Your task to perform on an android device: star an email in the gmail app Image 0: 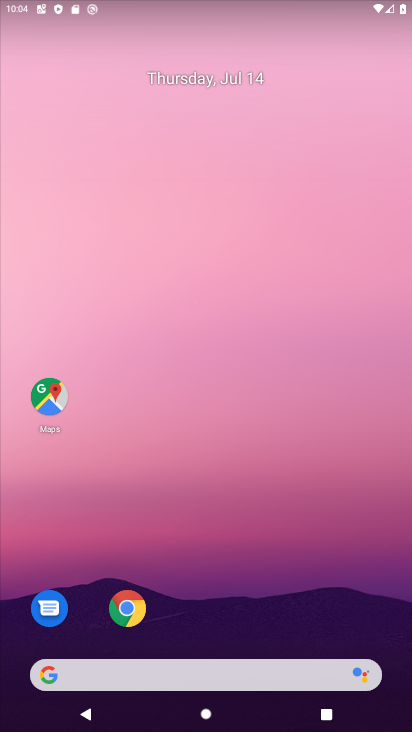
Step 0: drag from (187, 322) to (187, 92)
Your task to perform on an android device: star an email in the gmail app Image 1: 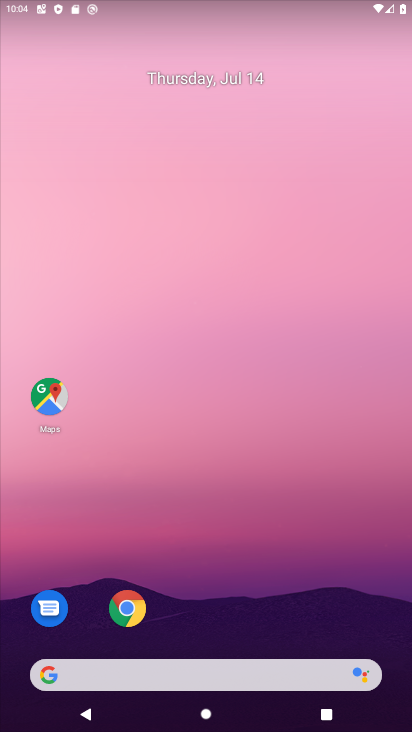
Step 1: drag from (184, 569) to (152, 222)
Your task to perform on an android device: star an email in the gmail app Image 2: 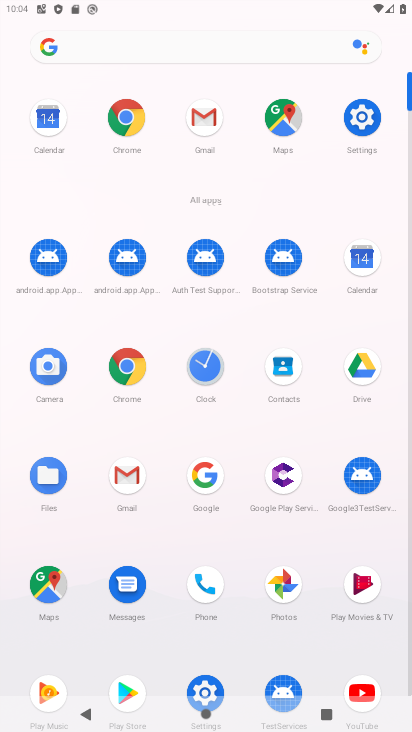
Step 2: click (198, 119)
Your task to perform on an android device: star an email in the gmail app Image 3: 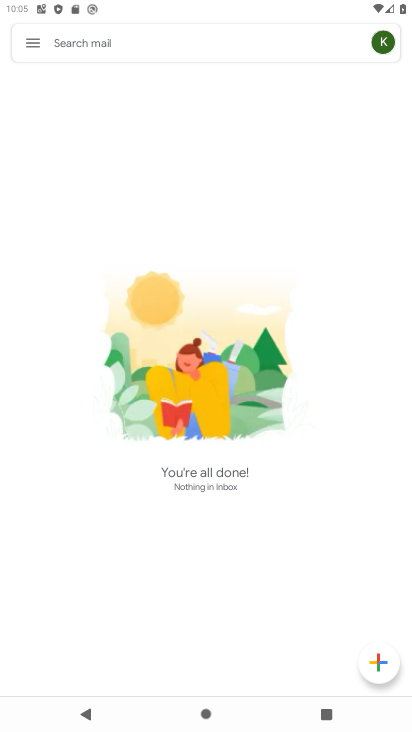
Step 3: click (30, 41)
Your task to perform on an android device: star an email in the gmail app Image 4: 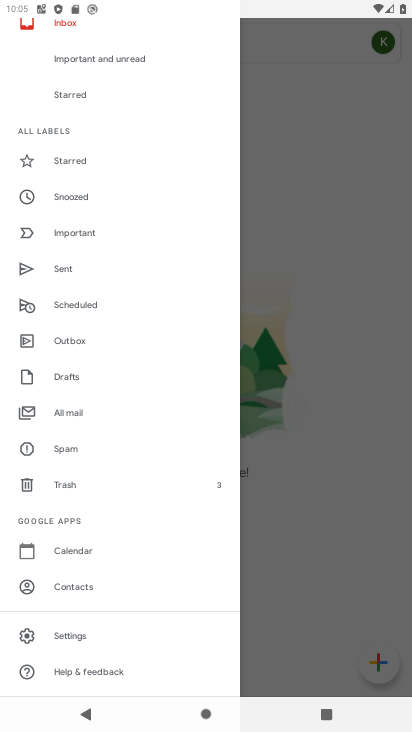
Step 4: click (68, 416)
Your task to perform on an android device: star an email in the gmail app Image 5: 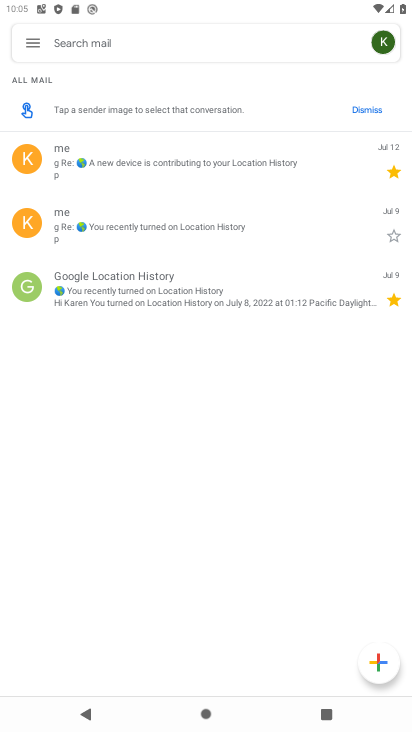
Step 5: click (387, 238)
Your task to perform on an android device: star an email in the gmail app Image 6: 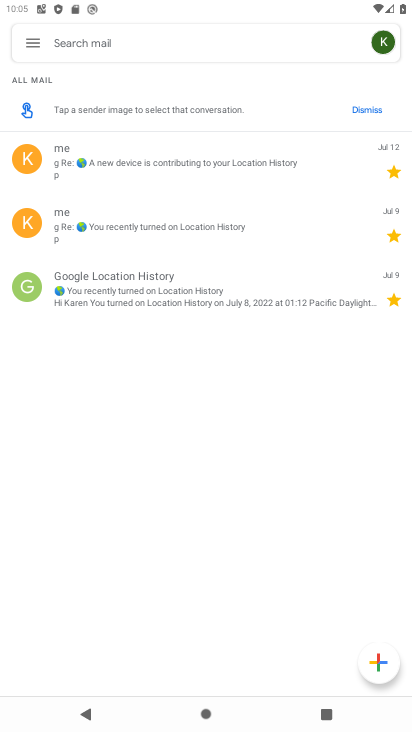
Step 6: task complete